Your task to perform on an android device: Check the news Image 0: 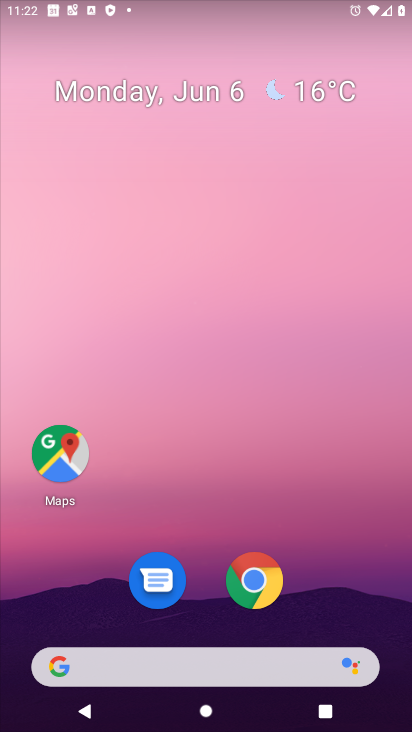
Step 0: drag from (363, 528) to (411, 405)
Your task to perform on an android device: Check the news Image 1: 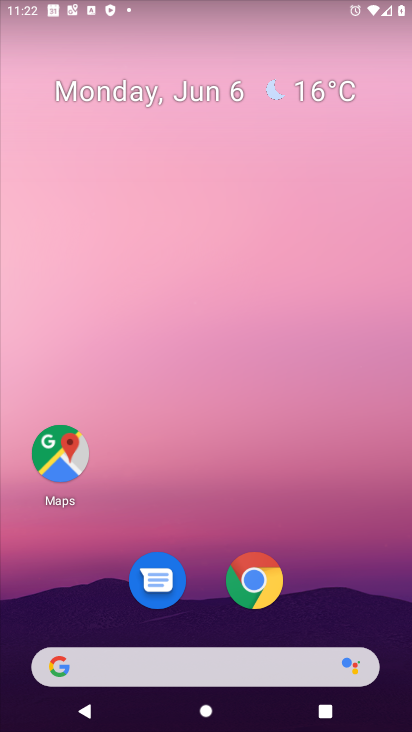
Step 1: drag from (332, 608) to (335, 20)
Your task to perform on an android device: Check the news Image 2: 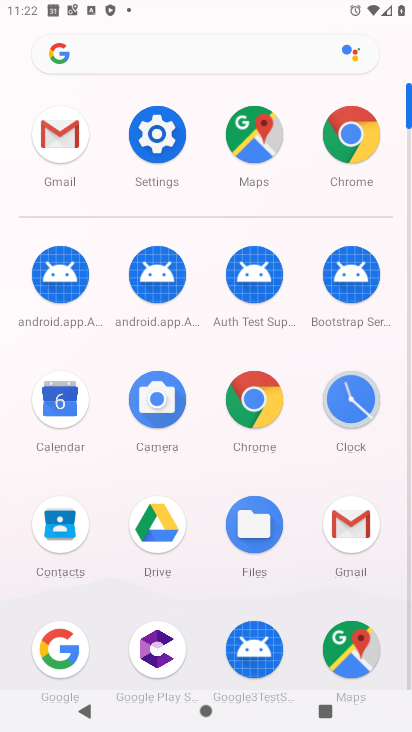
Step 2: click (350, 122)
Your task to perform on an android device: Check the news Image 3: 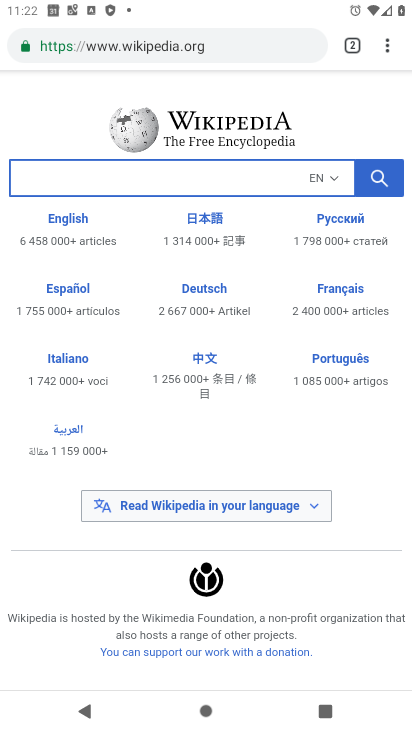
Step 3: click (390, 44)
Your task to perform on an android device: Check the news Image 4: 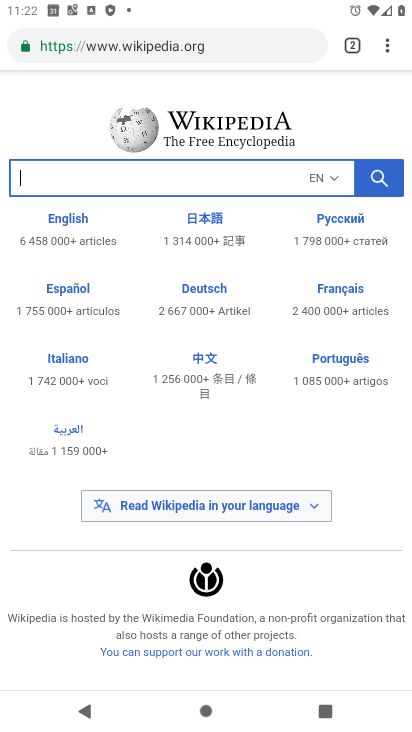
Step 4: task complete